Your task to perform on an android device: turn on wifi Image 0: 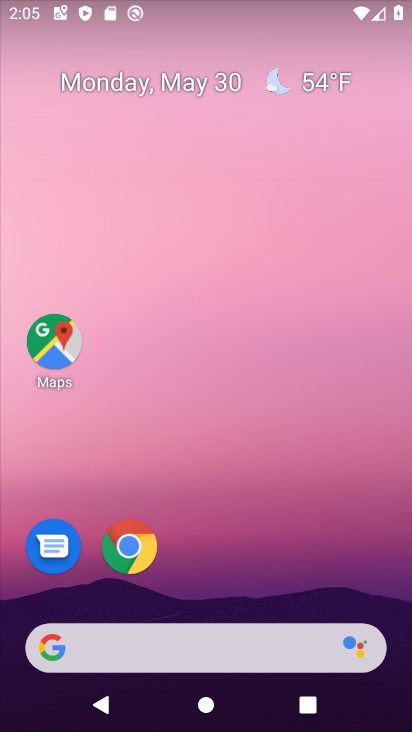
Step 0: click (159, 464)
Your task to perform on an android device: turn on wifi Image 1: 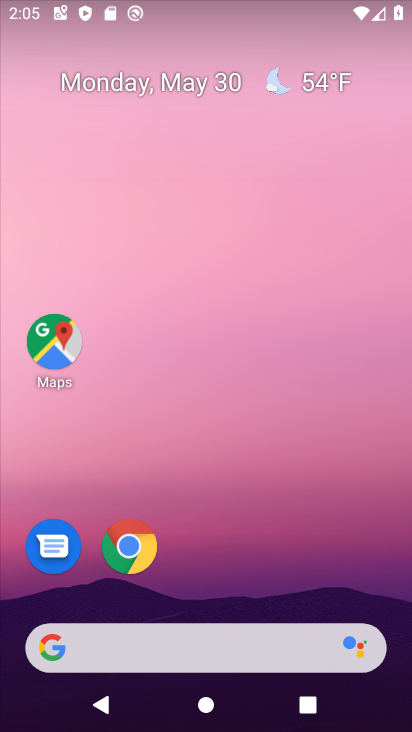
Step 1: task complete